Your task to perform on an android device: install app "DoorDash - Food Delivery" Image 0: 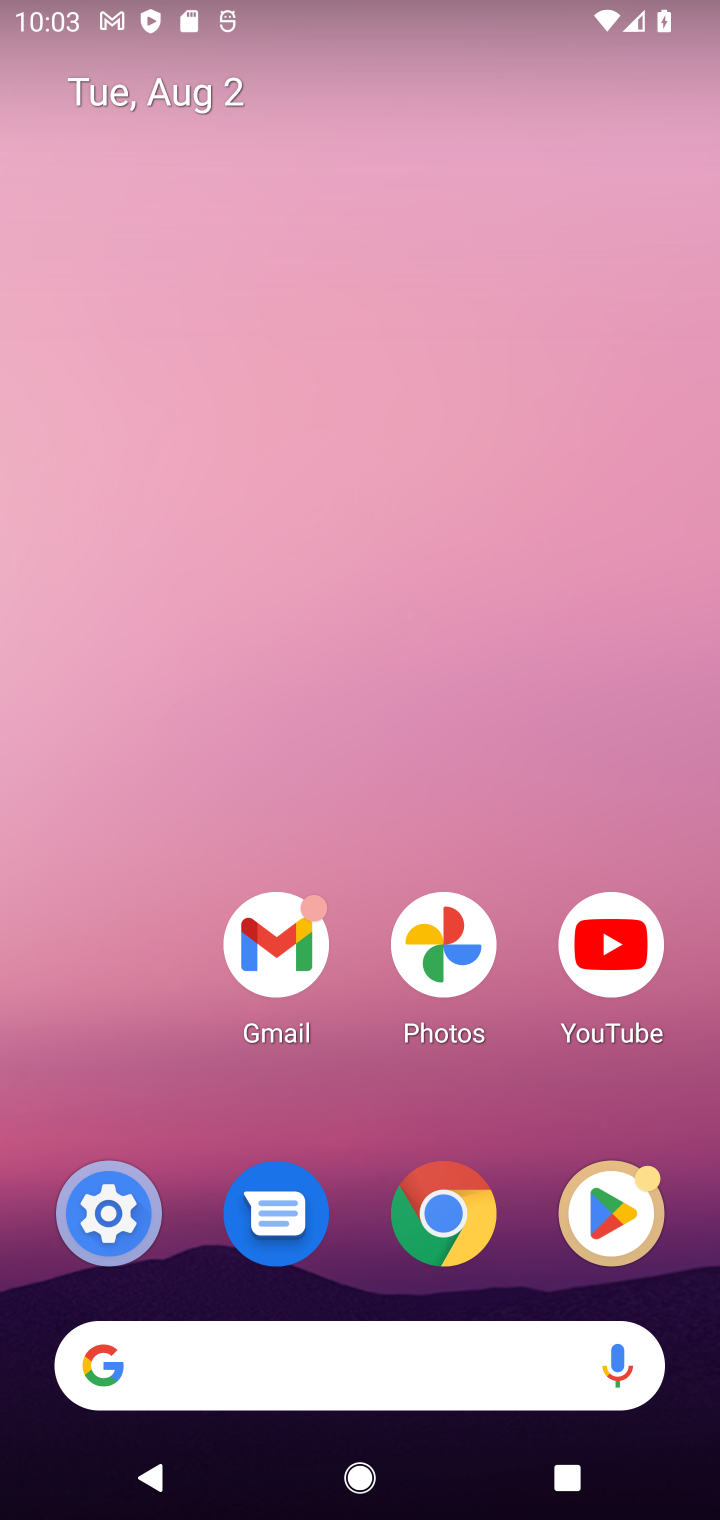
Step 0: click (626, 1208)
Your task to perform on an android device: install app "DoorDash - Food Delivery" Image 1: 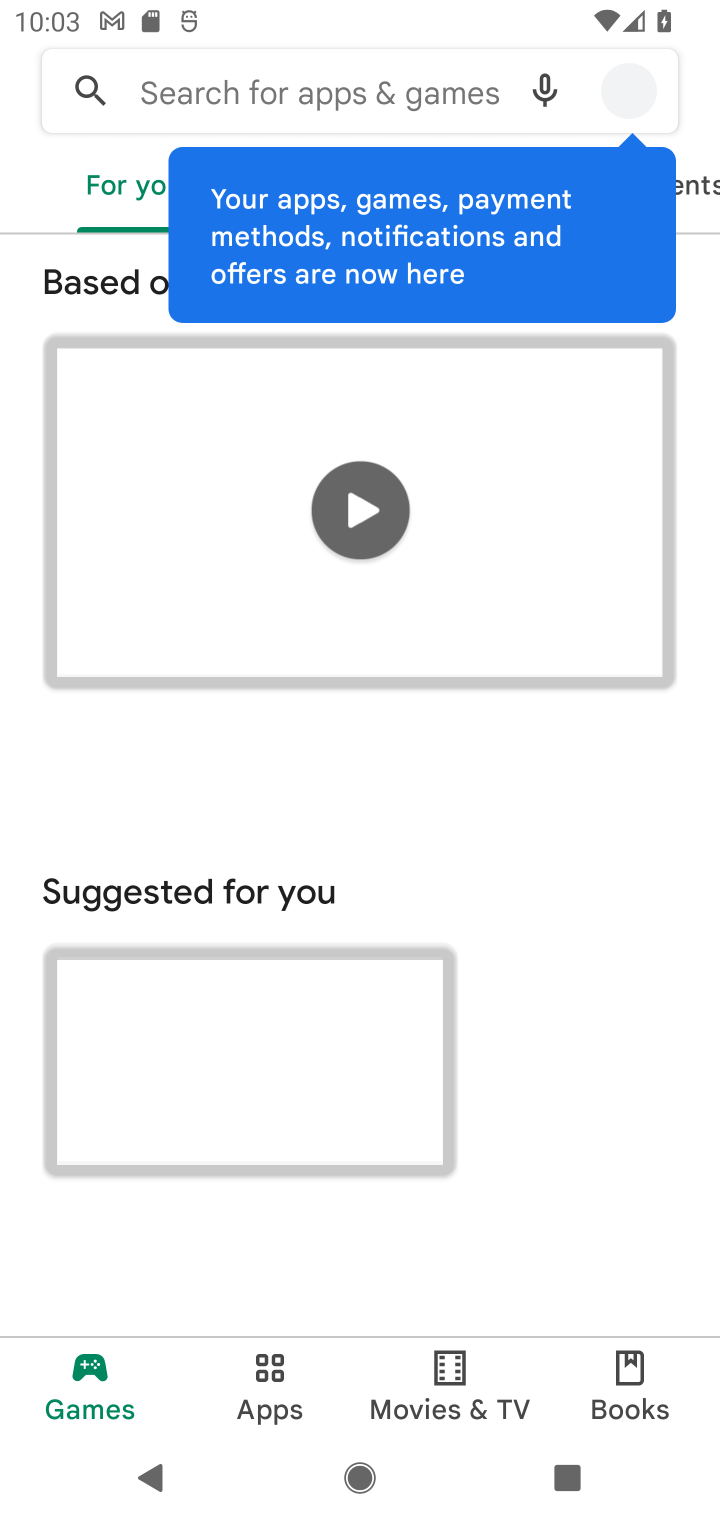
Step 1: click (339, 80)
Your task to perform on an android device: install app "DoorDash - Food Delivery" Image 2: 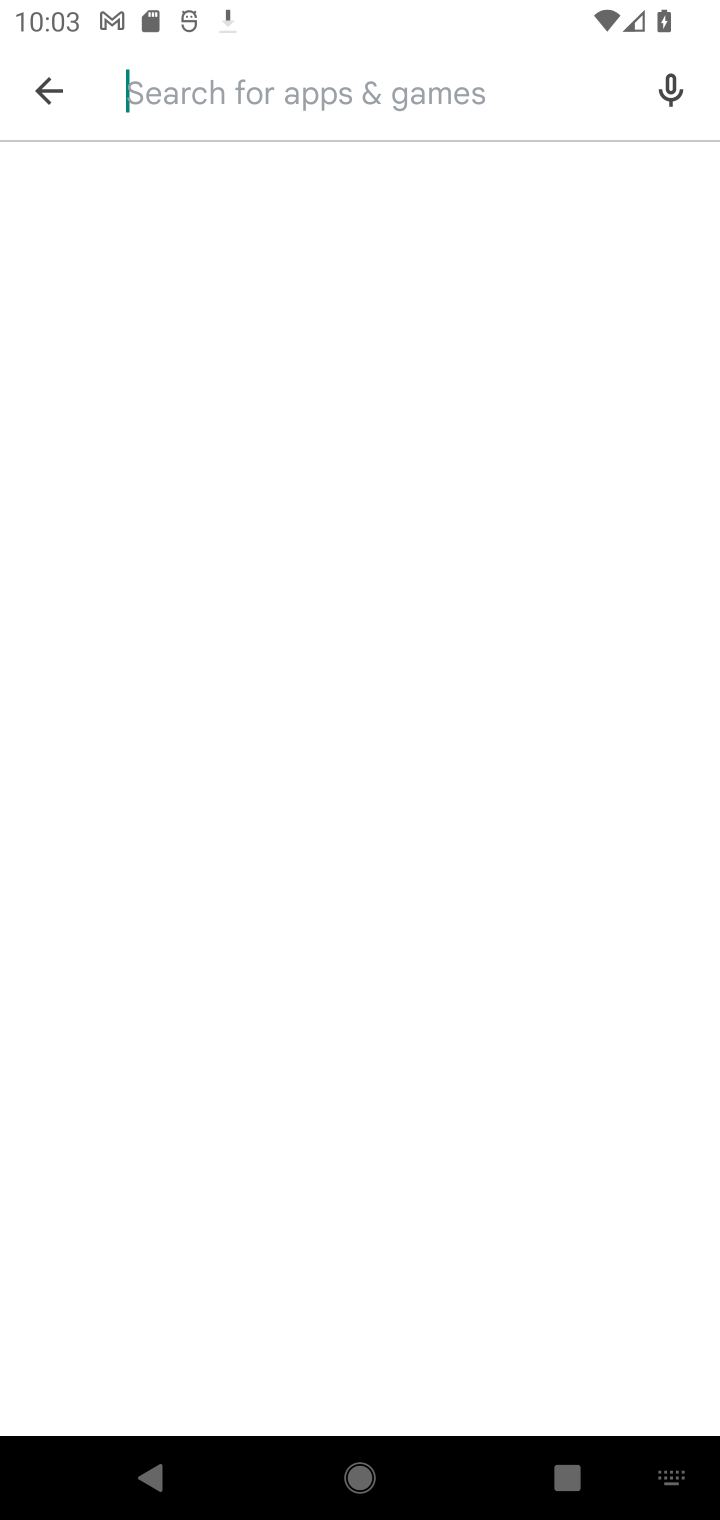
Step 2: type "DoorDash - Food Delivery"
Your task to perform on an android device: install app "DoorDash - Food Delivery" Image 3: 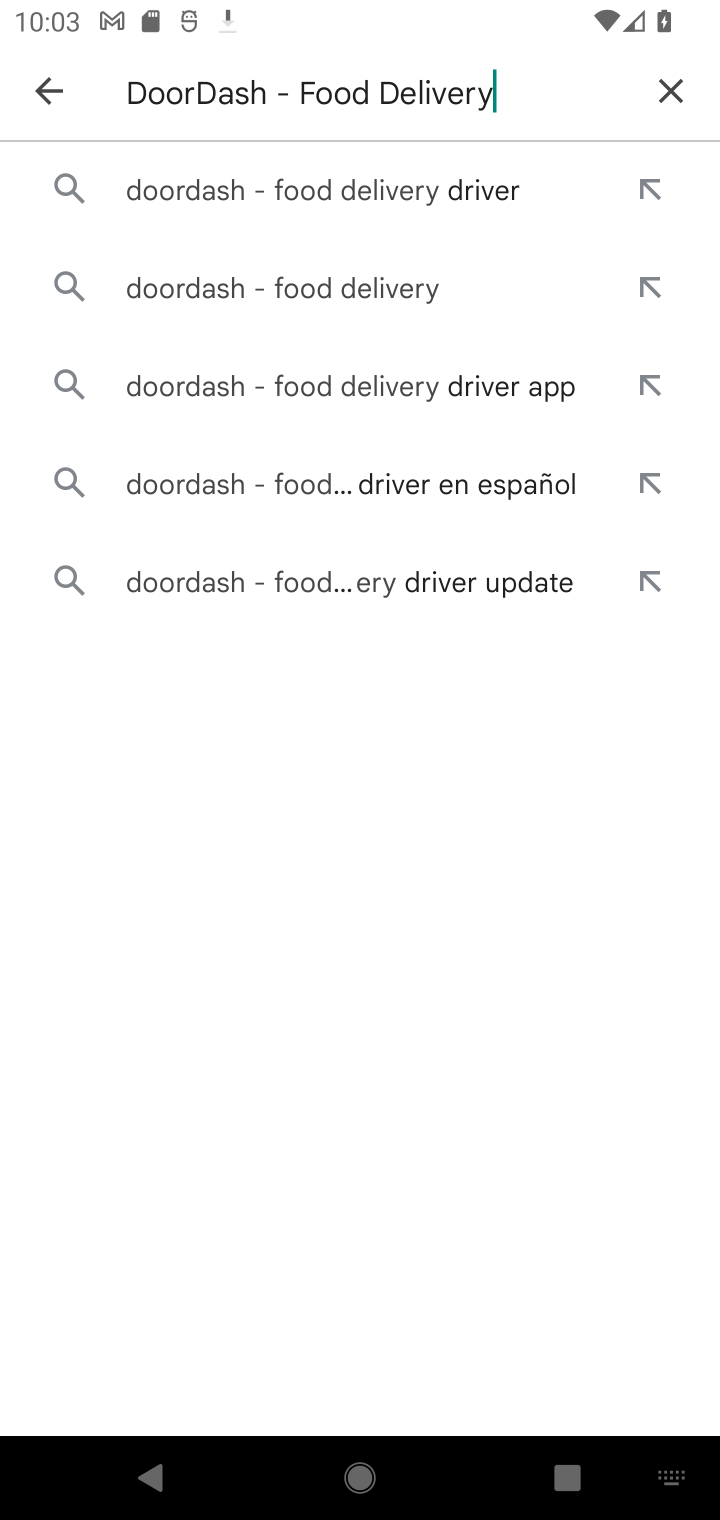
Step 3: click (413, 198)
Your task to perform on an android device: install app "DoorDash - Food Delivery" Image 4: 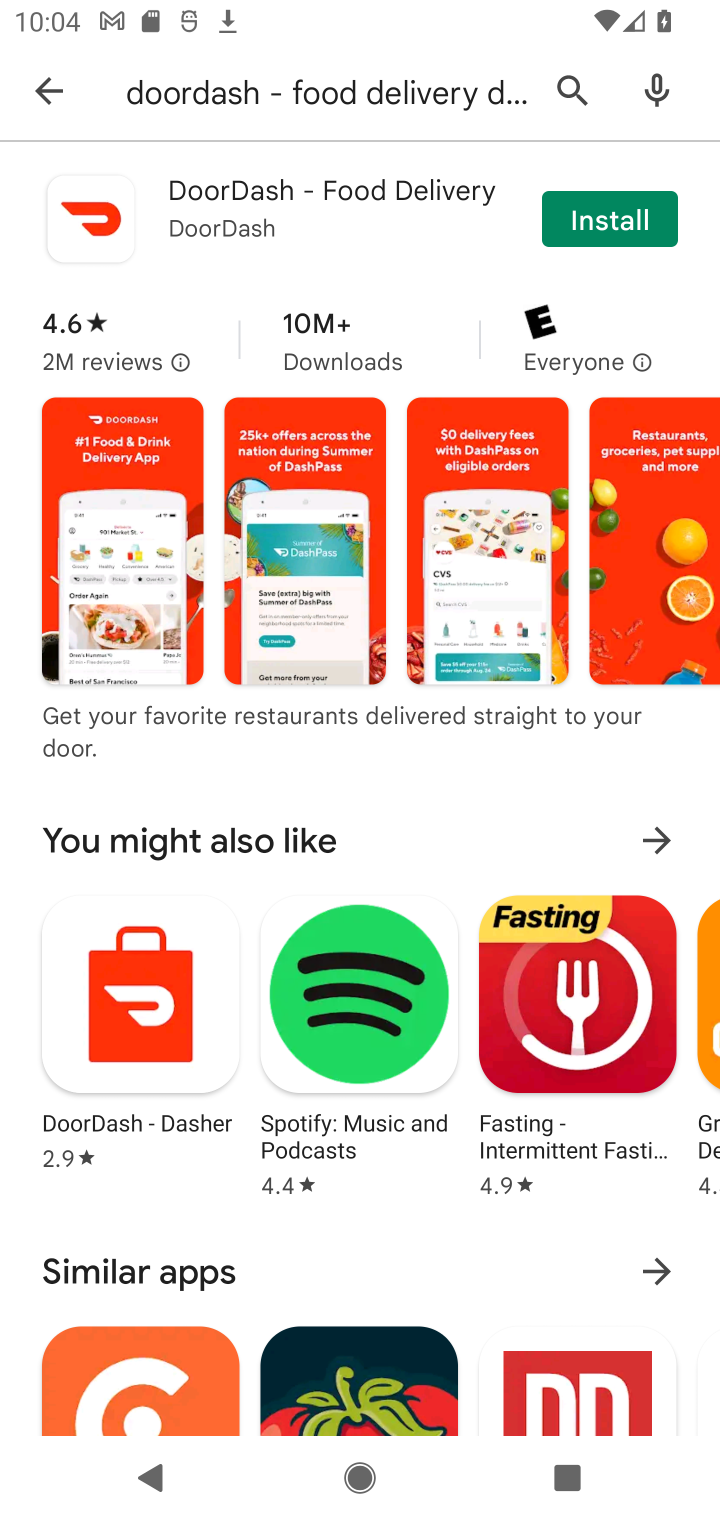
Step 4: click (585, 215)
Your task to perform on an android device: install app "DoorDash - Food Delivery" Image 5: 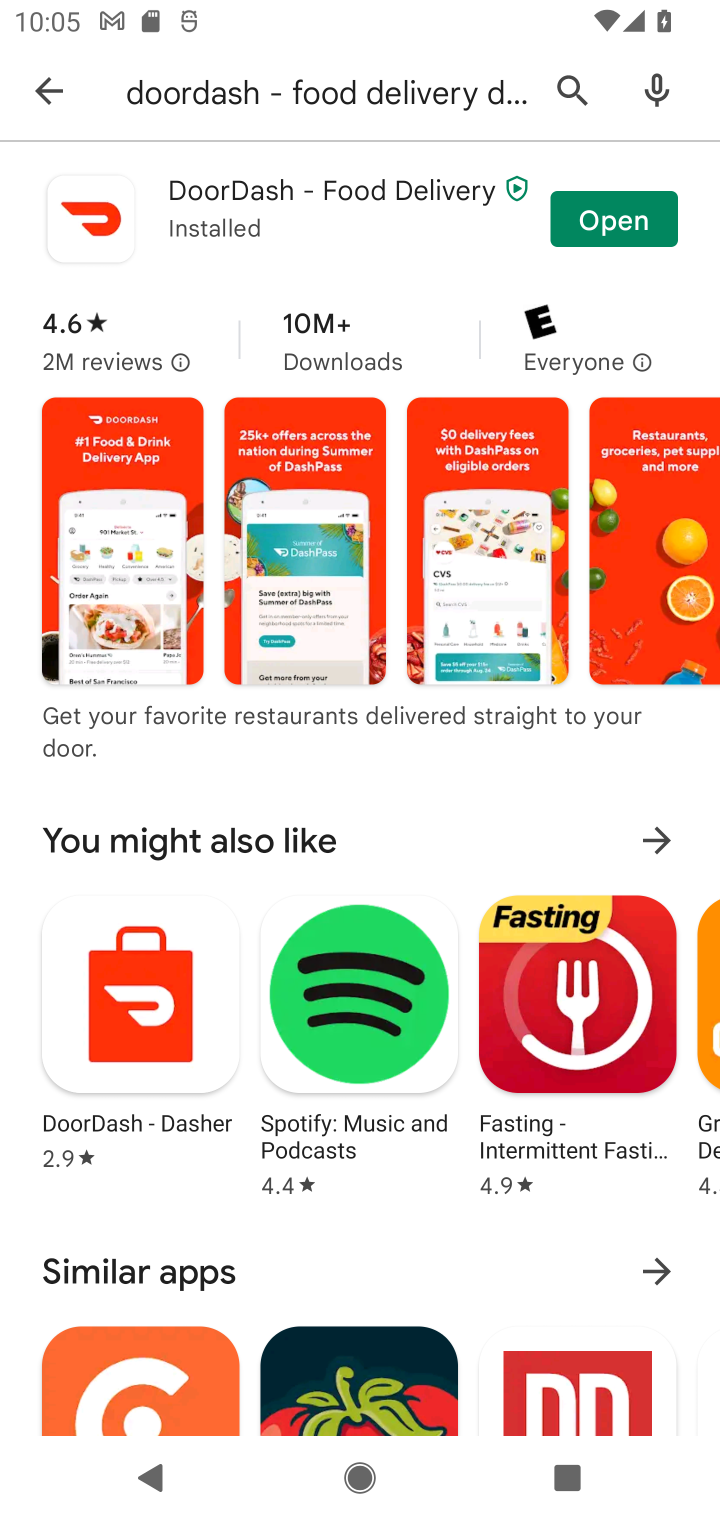
Step 5: task complete